Your task to perform on an android device: delete browsing data in the chrome app Image 0: 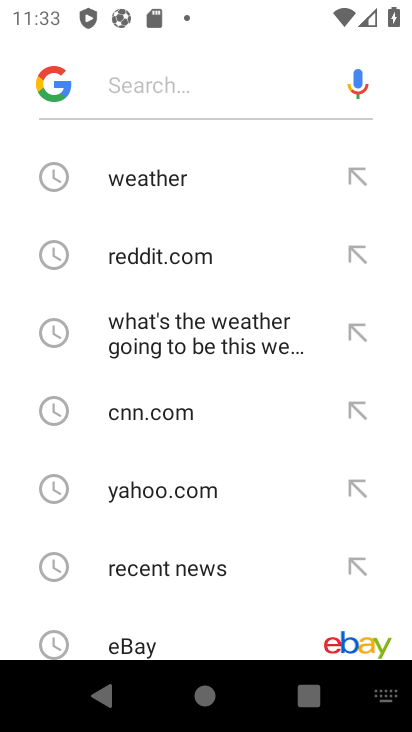
Step 0: press home button
Your task to perform on an android device: delete browsing data in the chrome app Image 1: 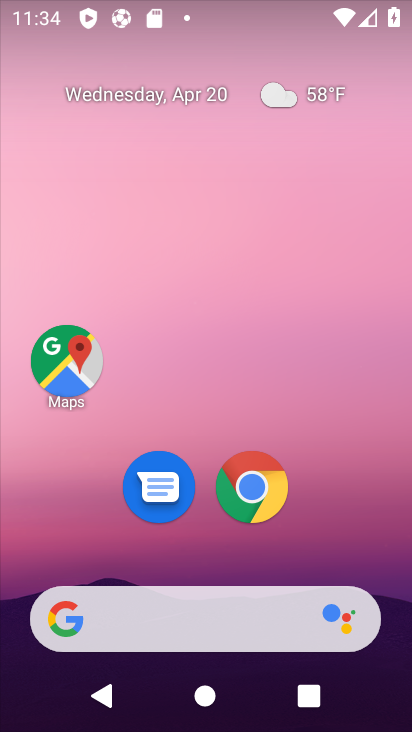
Step 1: click (255, 495)
Your task to perform on an android device: delete browsing data in the chrome app Image 2: 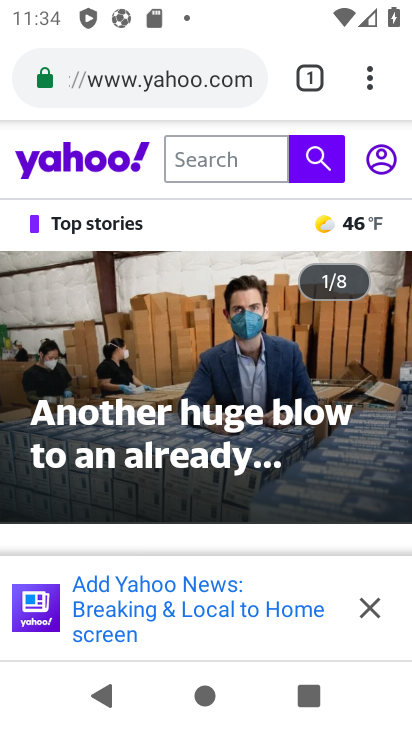
Step 2: click (369, 85)
Your task to perform on an android device: delete browsing data in the chrome app Image 3: 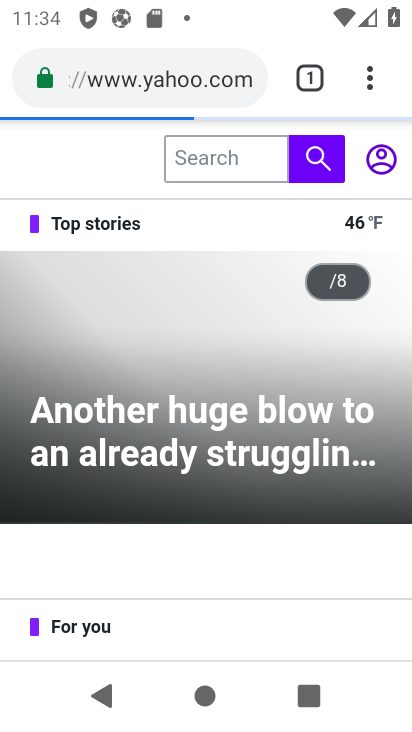
Step 3: click (370, 79)
Your task to perform on an android device: delete browsing data in the chrome app Image 4: 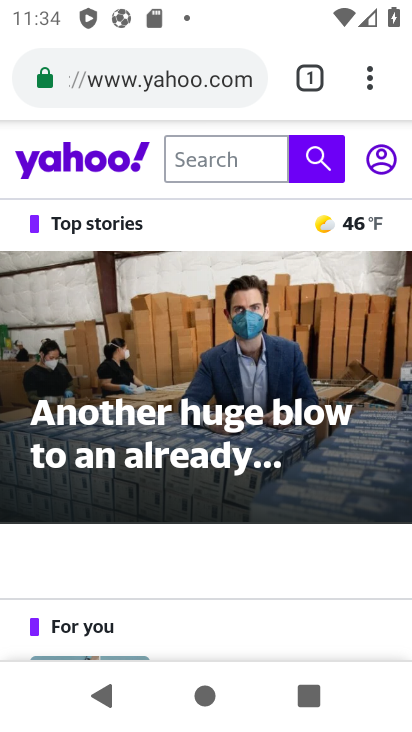
Step 4: click (370, 79)
Your task to perform on an android device: delete browsing data in the chrome app Image 5: 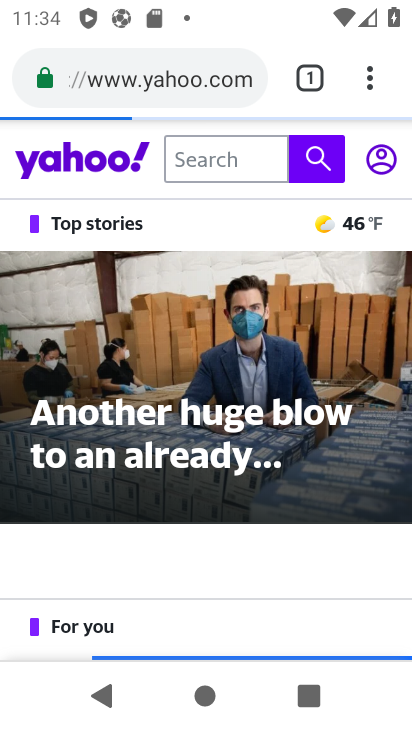
Step 5: click (370, 79)
Your task to perform on an android device: delete browsing data in the chrome app Image 6: 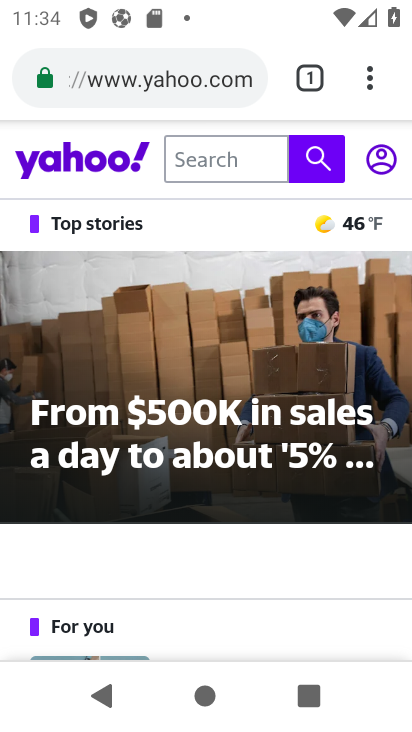
Step 6: click (370, 79)
Your task to perform on an android device: delete browsing data in the chrome app Image 7: 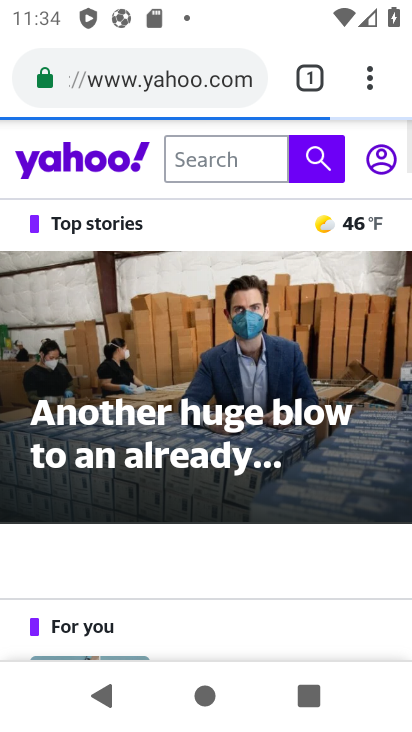
Step 7: click (370, 79)
Your task to perform on an android device: delete browsing data in the chrome app Image 8: 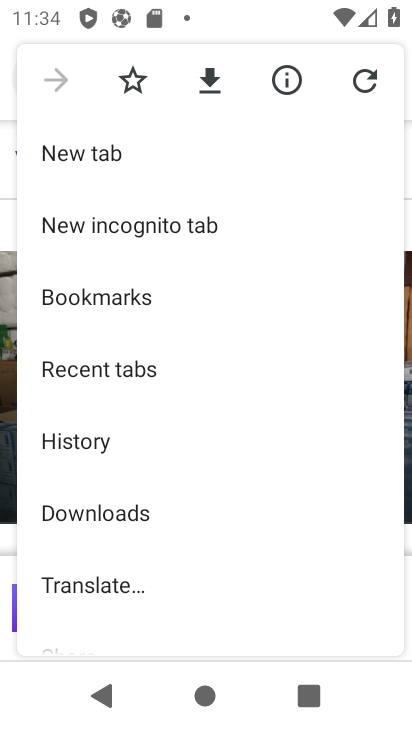
Step 8: drag from (148, 529) to (113, 160)
Your task to perform on an android device: delete browsing data in the chrome app Image 9: 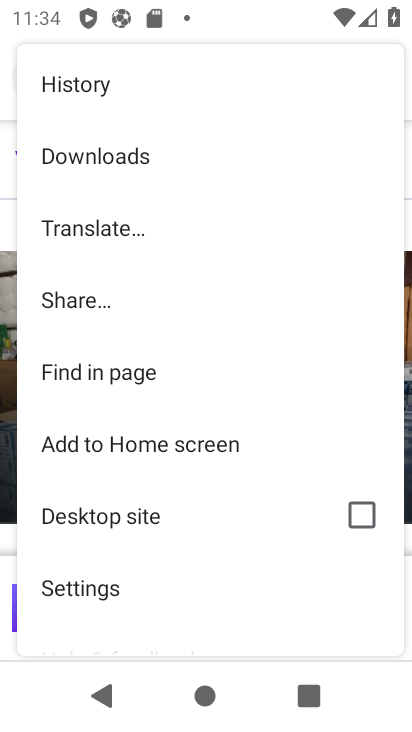
Step 9: click (81, 589)
Your task to perform on an android device: delete browsing data in the chrome app Image 10: 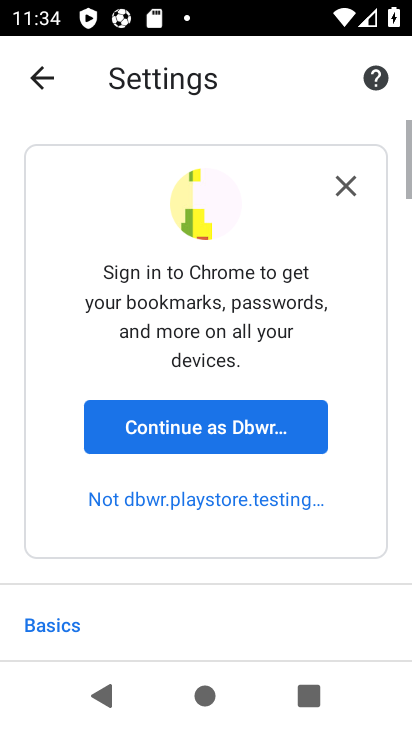
Step 10: drag from (133, 579) to (109, 142)
Your task to perform on an android device: delete browsing data in the chrome app Image 11: 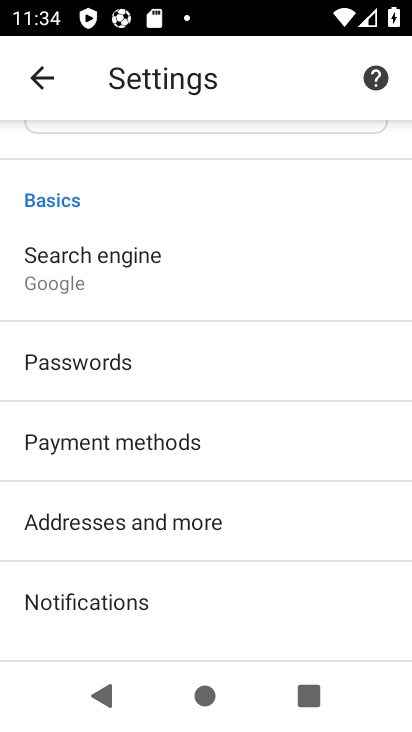
Step 11: drag from (111, 528) to (113, 171)
Your task to perform on an android device: delete browsing data in the chrome app Image 12: 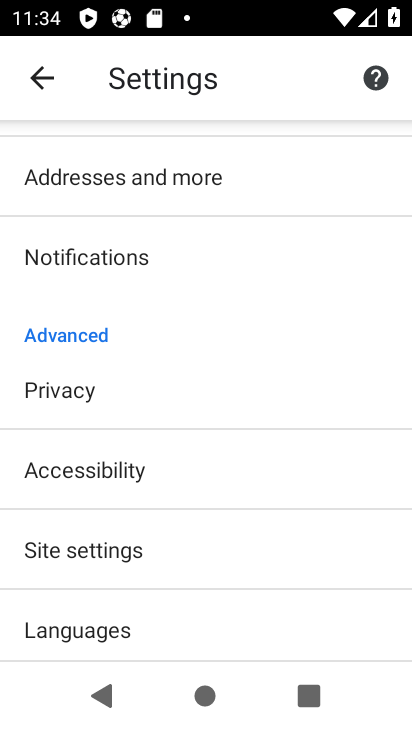
Step 12: click (45, 396)
Your task to perform on an android device: delete browsing data in the chrome app Image 13: 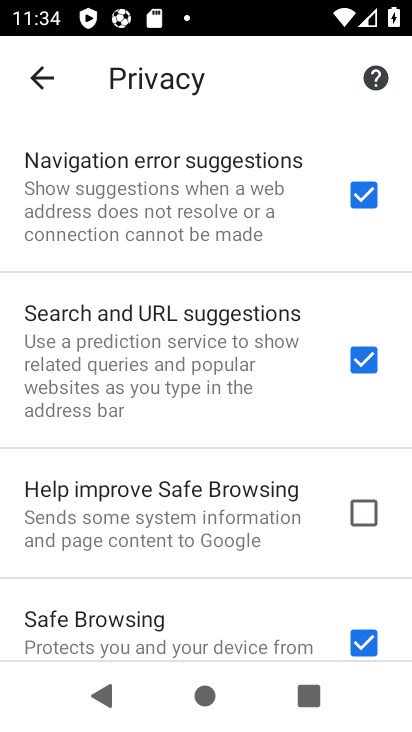
Step 13: drag from (110, 474) to (123, 165)
Your task to perform on an android device: delete browsing data in the chrome app Image 14: 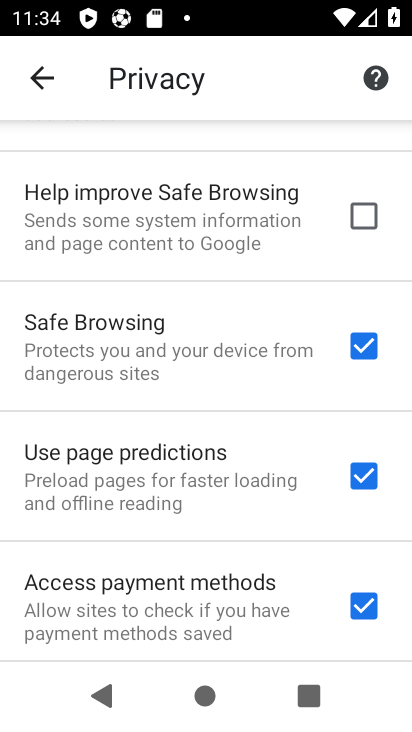
Step 14: drag from (174, 515) to (177, 279)
Your task to perform on an android device: delete browsing data in the chrome app Image 15: 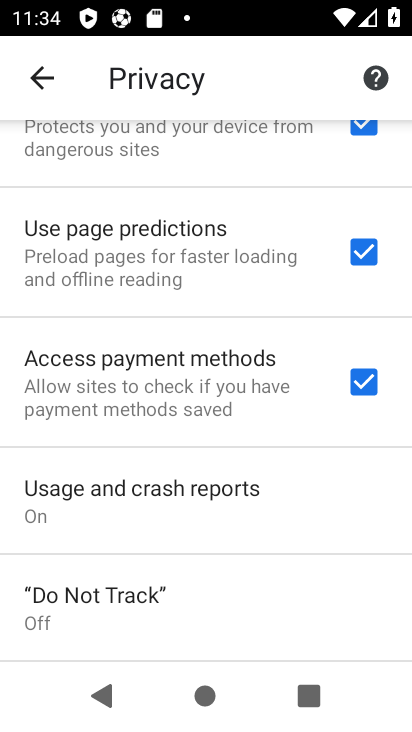
Step 15: drag from (173, 540) to (176, 227)
Your task to perform on an android device: delete browsing data in the chrome app Image 16: 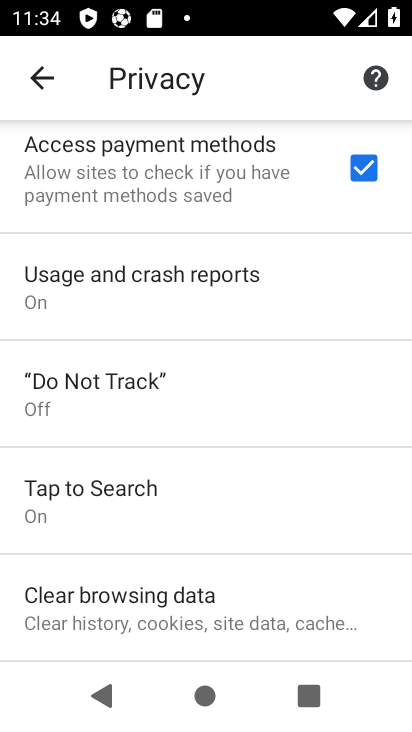
Step 16: click (131, 606)
Your task to perform on an android device: delete browsing data in the chrome app Image 17: 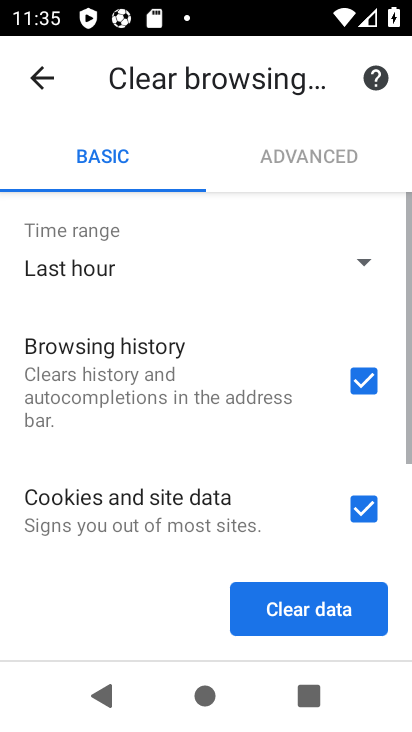
Step 17: click (360, 518)
Your task to perform on an android device: delete browsing data in the chrome app Image 18: 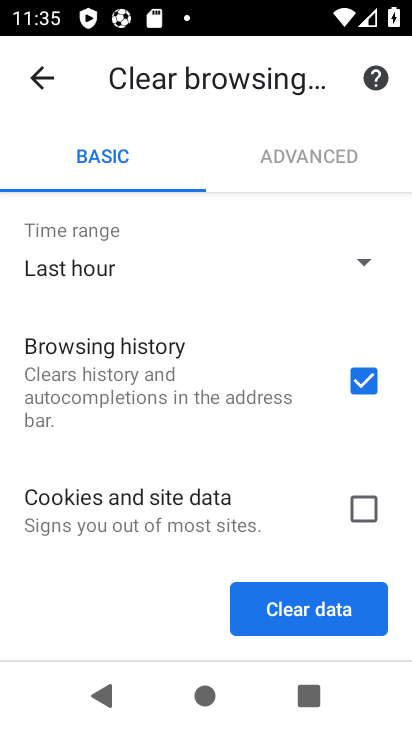
Step 18: drag from (125, 458) to (137, 224)
Your task to perform on an android device: delete browsing data in the chrome app Image 19: 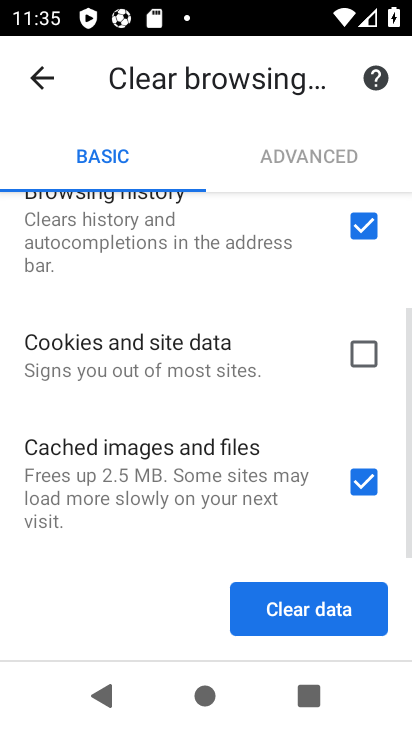
Step 19: click (355, 479)
Your task to perform on an android device: delete browsing data in the chrome app Image 20: 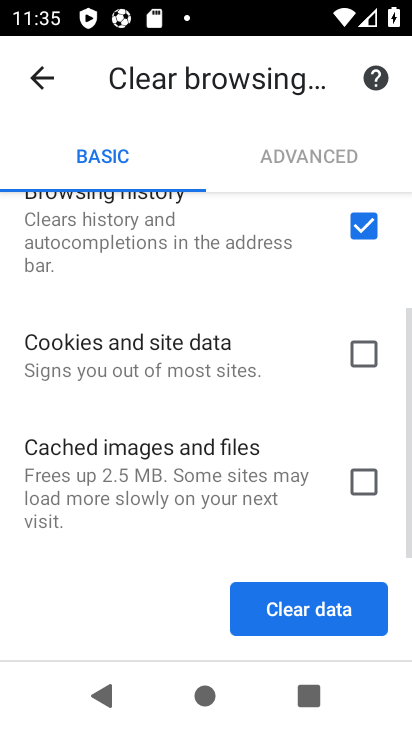
Step 20: click (295, 616)
Your task to perform on an android device: delete browsing data in the chrome app Image 21: 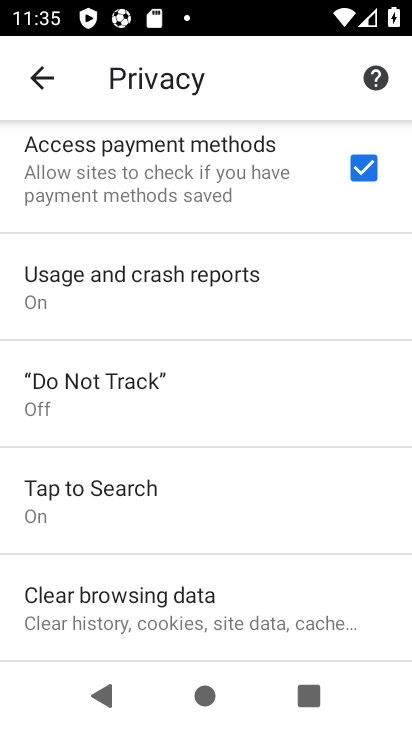
Step 21: task complete